Your task to perform on an android device: Search for Mexican restaurants on Maps Image 0: 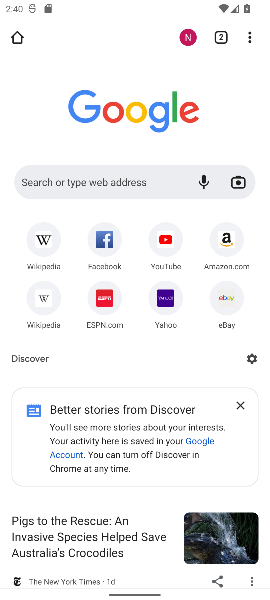
Step 0: press home button
Your task to perform on an android device: Search for Mexican restaurants on Maps Image 1: 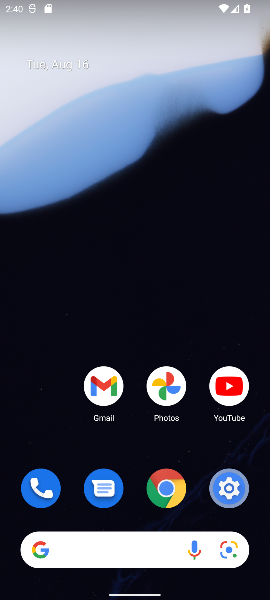
Step 1: drag from (43, 403) to (107, 10)
Your task to perform on an android device: Search for Mexican restaurants on Maps Image 2: 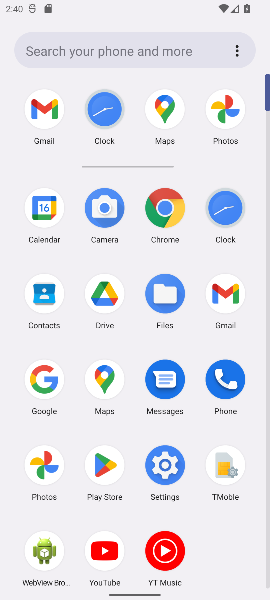
Step 2: click (95, 382)
Your task to perform on an android device: Search for Mexican restaurants on Maps Image 3: 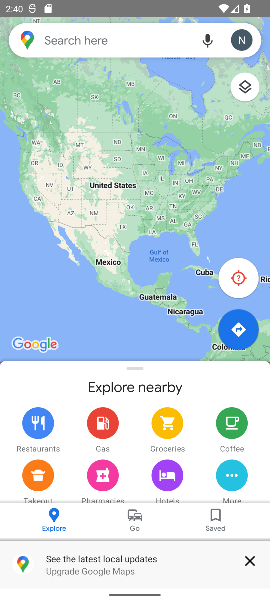
Step 3: type " Mexican restaurants "
Your task to perform on an android device: Search for Mexican restaurants on Maps Image 4: 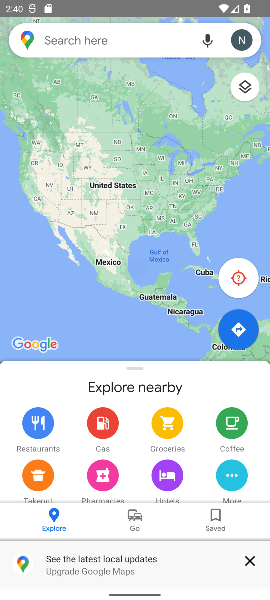
Step 4: type ""
Your task to perform on an android device: Search for Mexican restaurants on Maps Image 5: 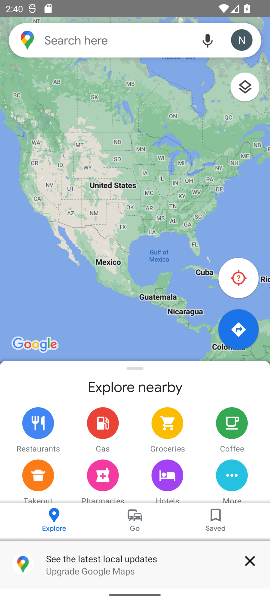
Step 5: press enter
Your task to perform on an android device: Search for Mexican restaurants on Maps Image 6: 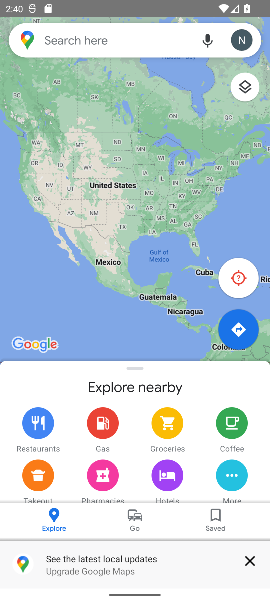
Step 6: click (102, 37)
Your task to perform on an android device: Search for Mexican restaurants on Maps Image 7: 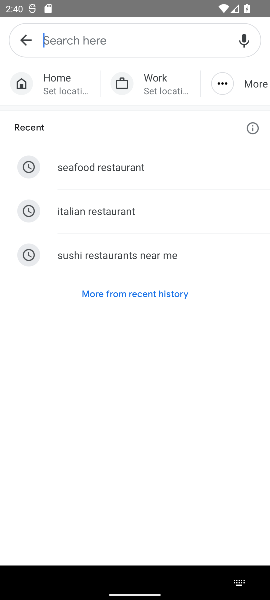
Step 7: type " Mexican restaurants "
Your task to perform on an android device: Search for Mexican restaurants on Maps Image 8: 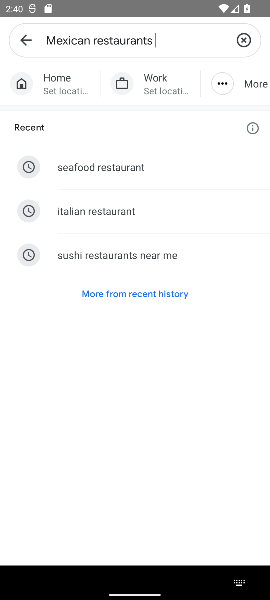
Step 8: press enter
Your task to perform on an android device: Search for Mexican restaurants on Maps Image 9: 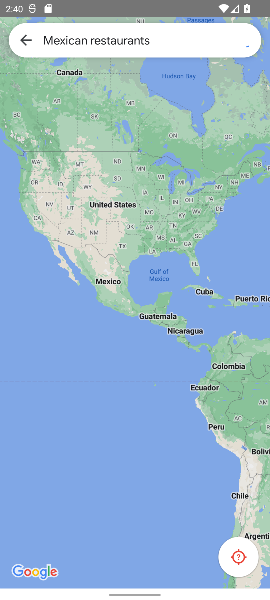
Step 9: task complete